Your task to perform on an android device: turn on data saver in the chrome app Image 0: 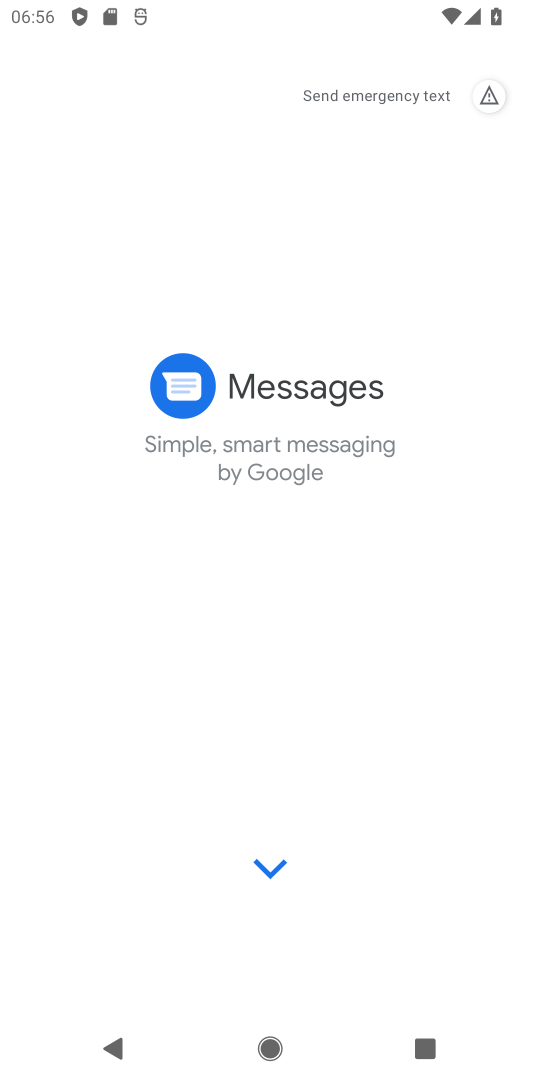
Step 0: press home button
Your task to perform on an android device: turn on data saver in the chrome app Image 1: 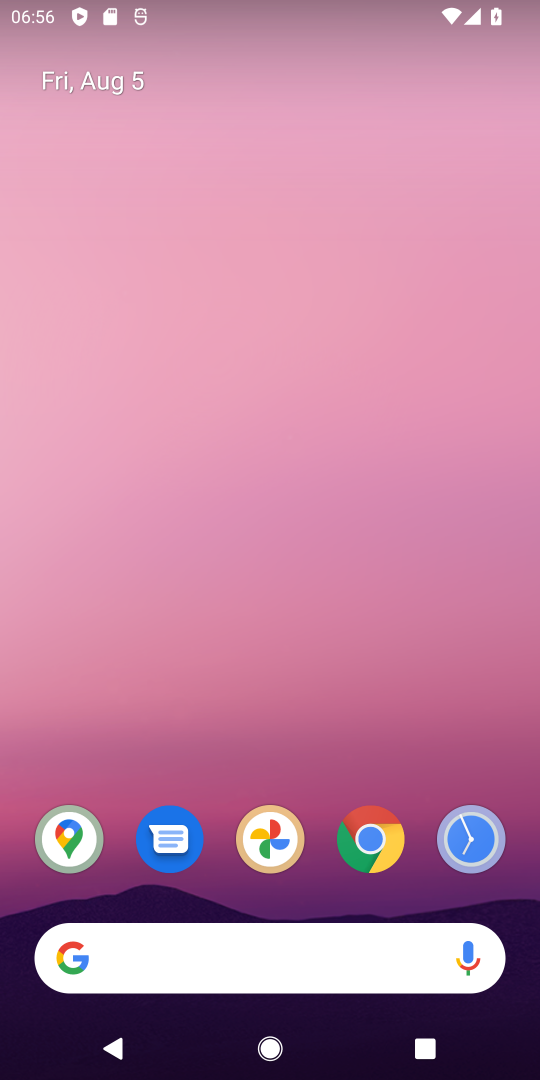
Step 1: click (367, 838)
Your task to perform on an android device: turn on data saver in the chrome app Image 2: 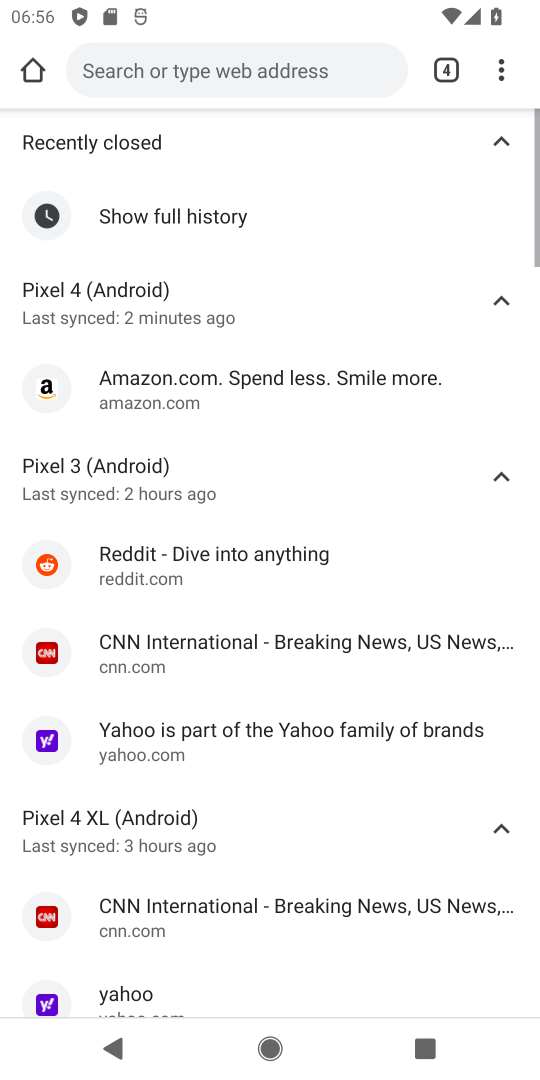
Step 2: click (505, 77)
Your task to perform on an android device: turn on data saver in the chrome app Image 3: 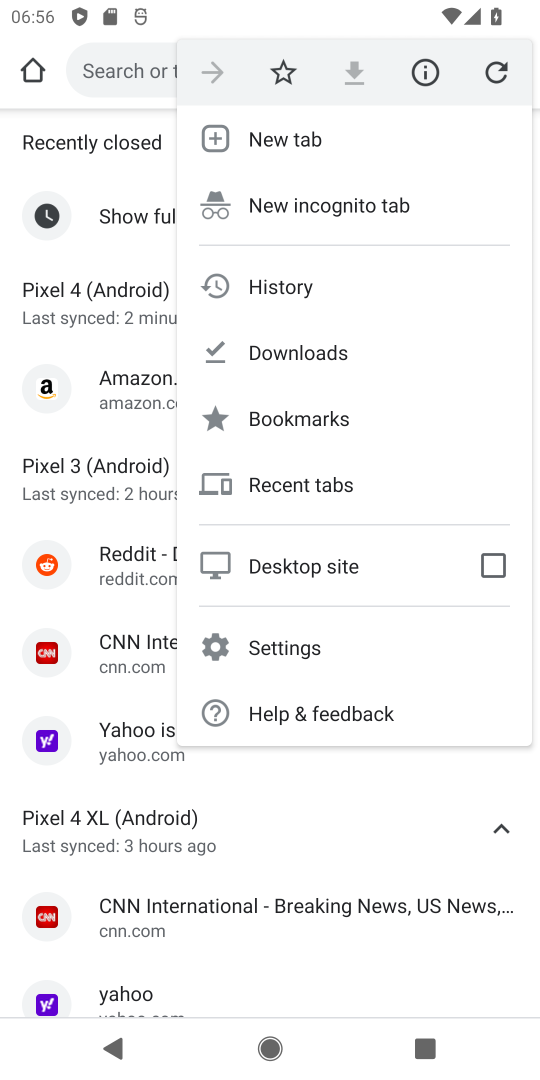
Step 3: click (293, 647)
Your task to perform on an android device: turn on data saver in the chrome app Image 4: 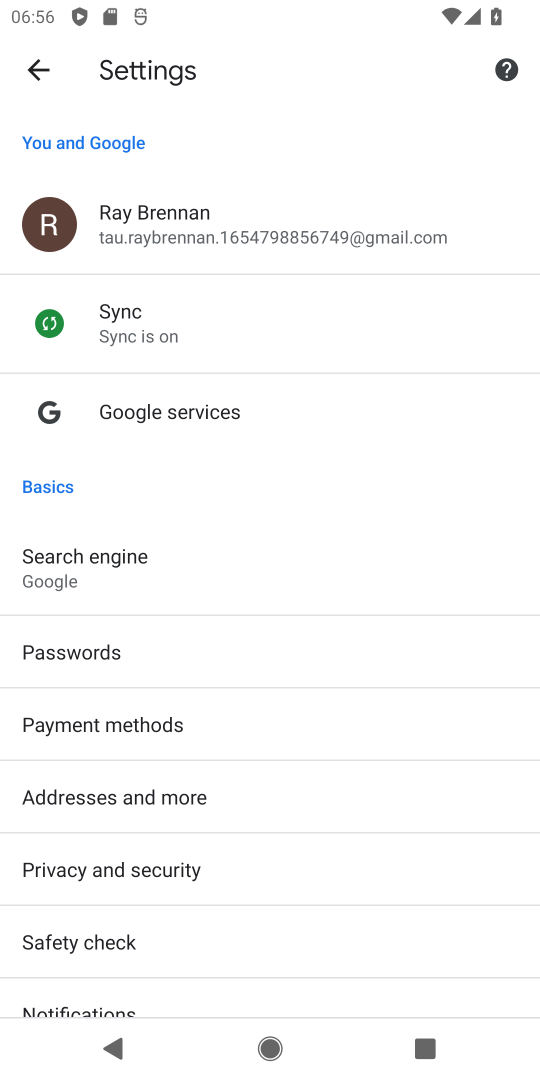
Step 4: drag from (147, 839) to (153, 351)
Your task to perform on an android device: turn on data saver in the chrome app Image 5: 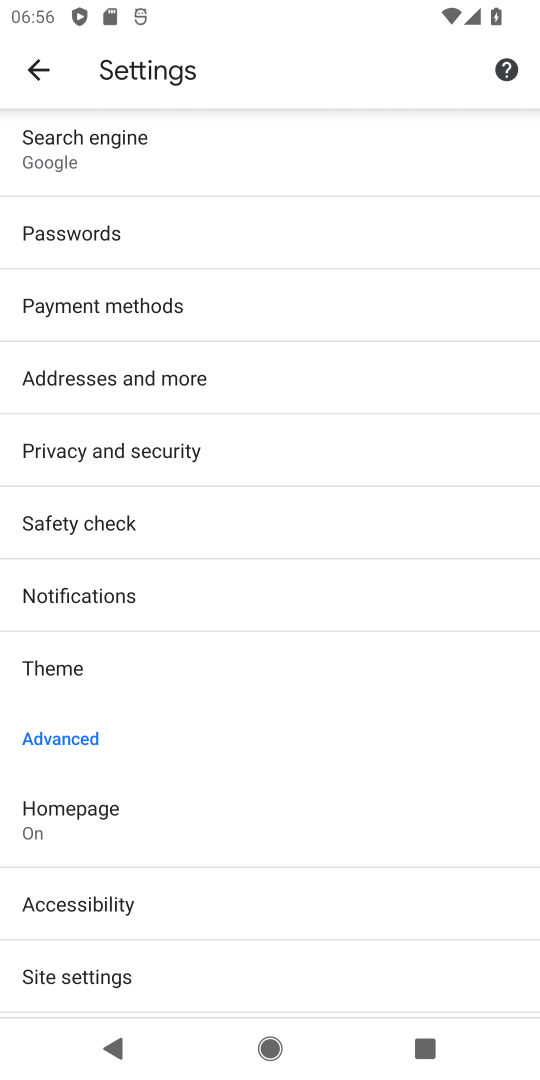
Step 5: drag from (108, 959) to (108, 388)
Your task to perform on an android device: turn on data saver in the chrome app Image 6: 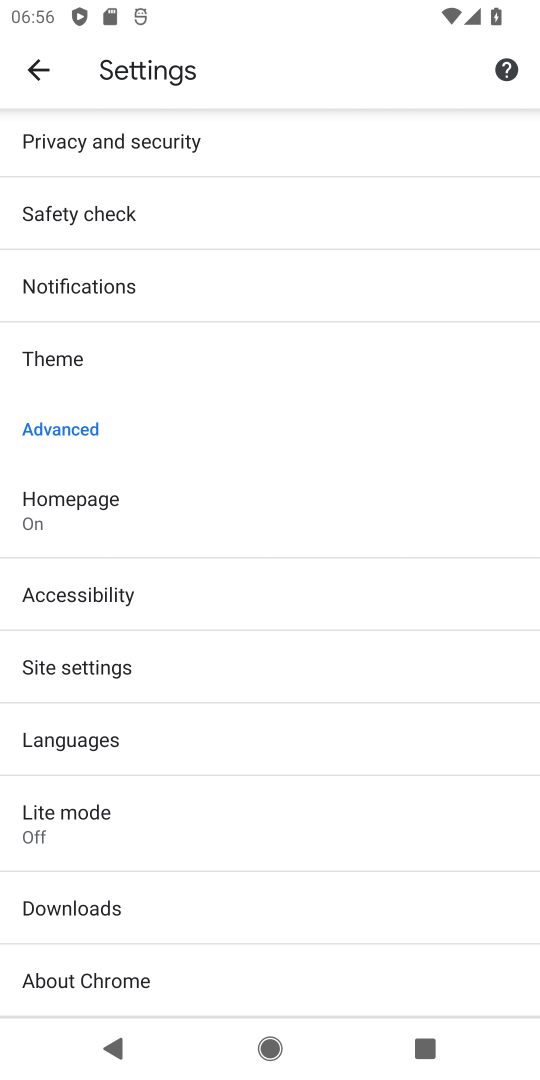
Step 6: click (87, 809)
Your task to perform on an android device: turn on data saver in the chrome app Image 7: 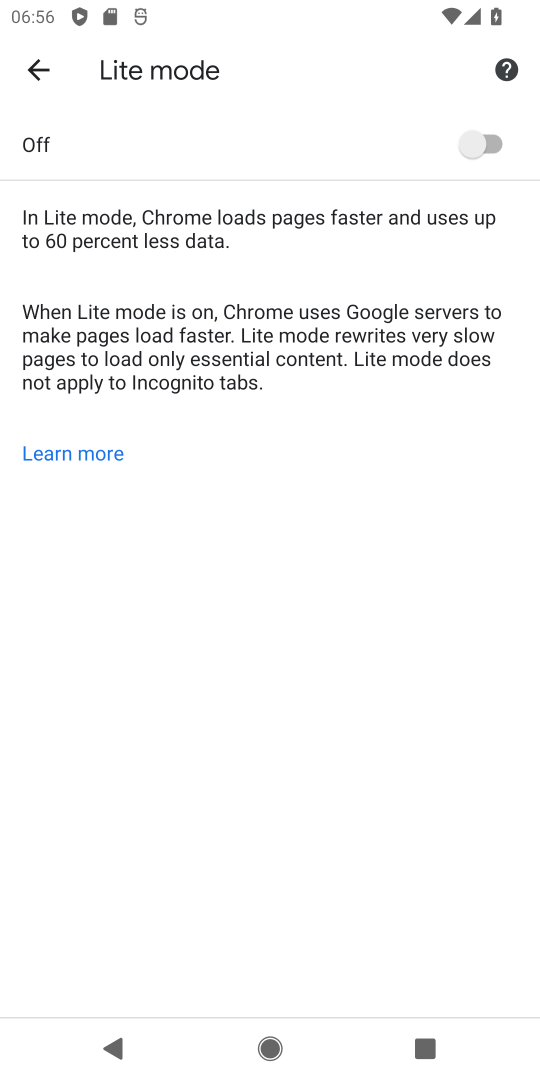
Step 7: click (477, 157)
Your task to perform on an android device: turn on data saver in the chrome app Image 8: 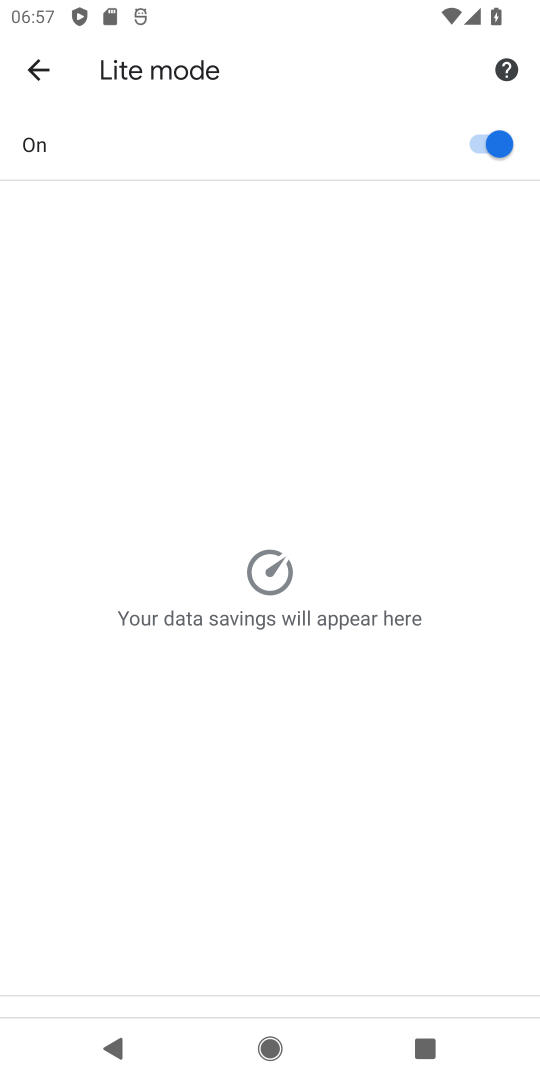
Step 8: task complete